Your task to perform on an android device: turn off notifications settings in the gmail app Image 0: 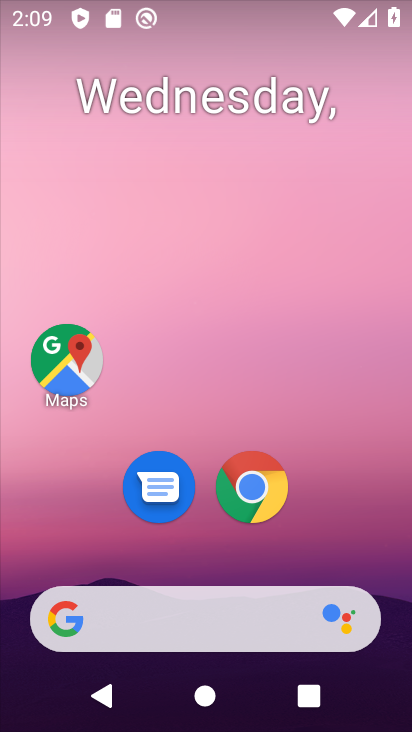
Step 0: drag from (221, 517) to (225, 12)
Your task to perform on an android device: turn off notifications settings in the gmail app Image 1: 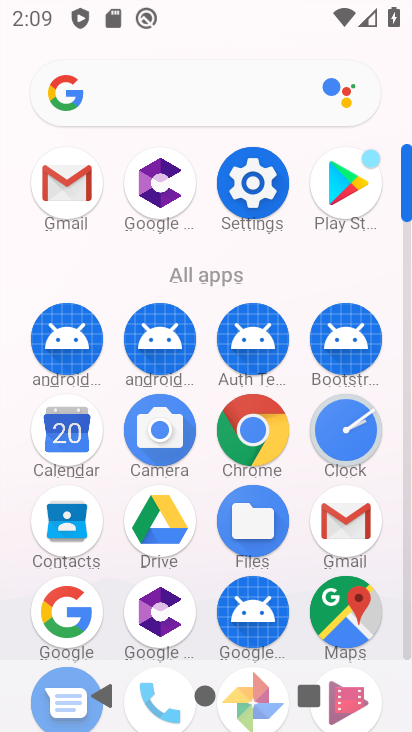
Step 1: click (350, 519)
Your task to perform on an android device: turn off notifications settings in the gmail app Image 2: 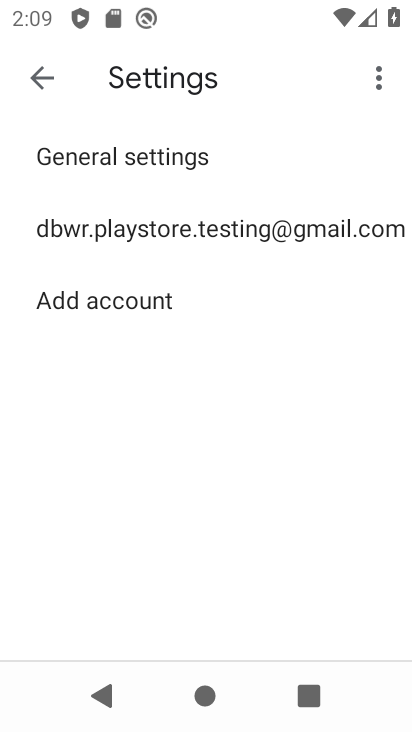
Step 2: click (129, 164)
Your task to perform on an android device: turn off notifications settings in the gmail app Image 3: 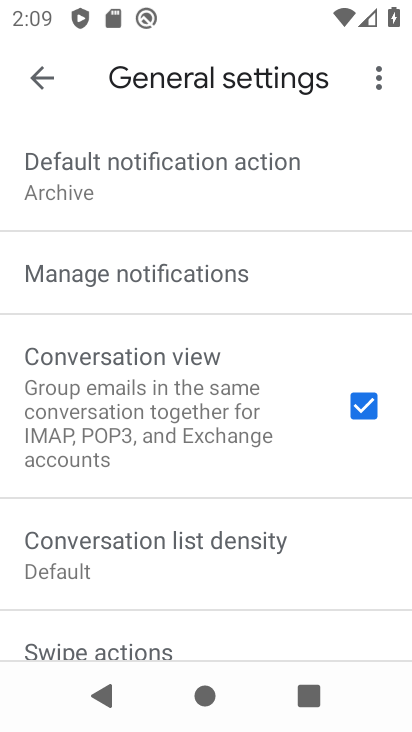
Step 3: click (148, 284)
Your task to perform on an android device: turn off notifications settings in the gmail app Image 4: 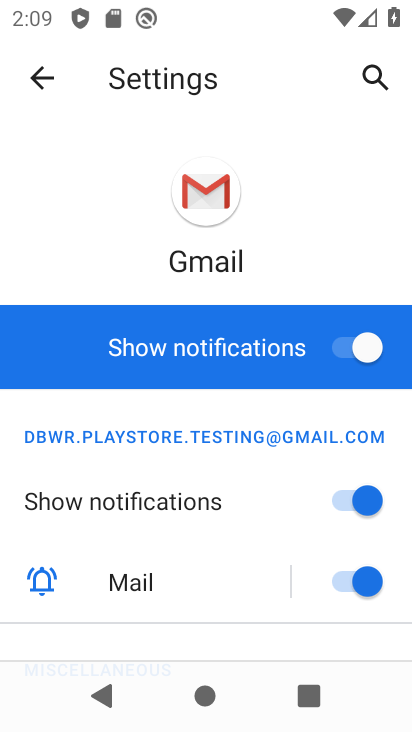
Step 4: click (351, 344)
Your task to perform on an android device: turn off notifications settings in the gmail app Image 5: 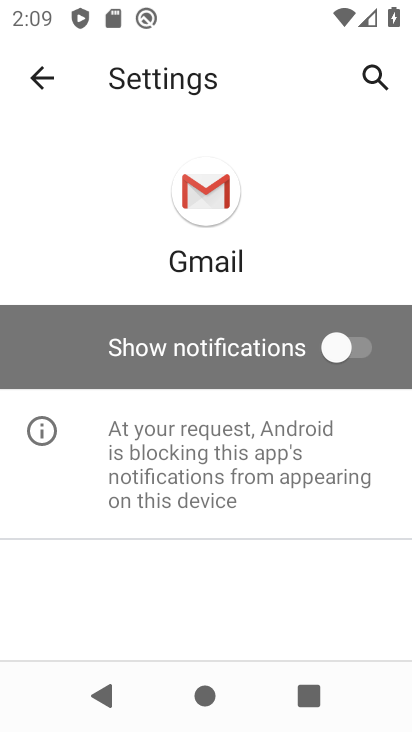
Step 5: task complete